Your task to perform on an android device: turn off javascript in the chrome app Image 0: 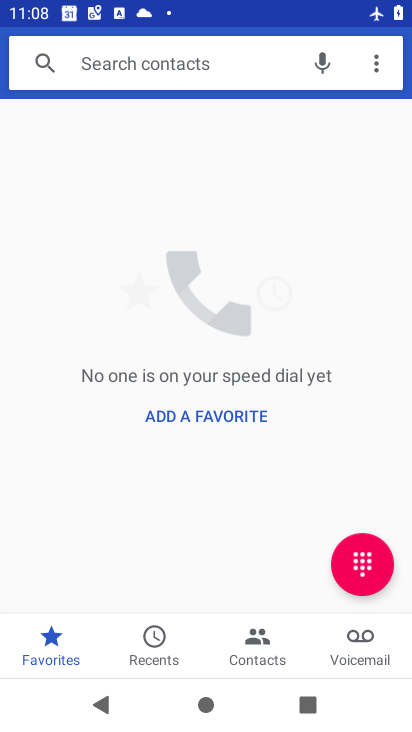
Step 0: press home button
Your task to perform on an android device: turn off javascript in the chrome app Image 1: 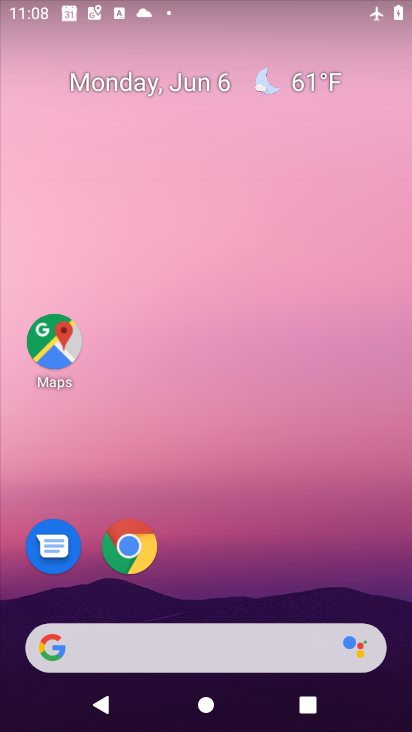
Step 1: click (130, 547)
Your task to perform on an android device: turn off javascript in the chrome app Image 2: 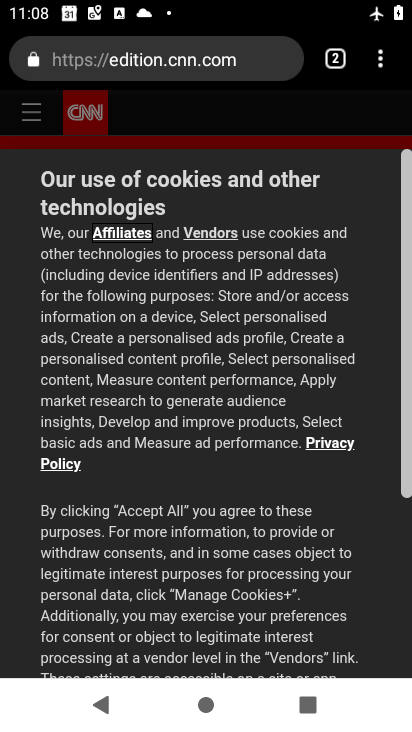
Step 2: click (377, 61)
Your task to perform on an android device: turn off javascript in the chrome app Image 3: 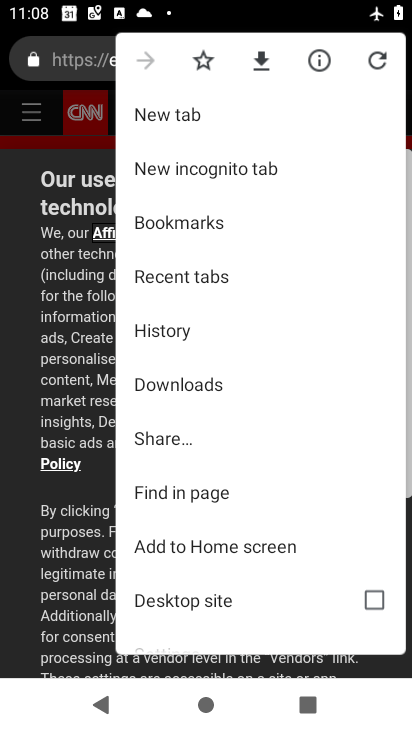
Step 3: drag from (309, 592) to (290, 194)
Your task to perform on an android device: turn off javascript in the chrome app Image 4: 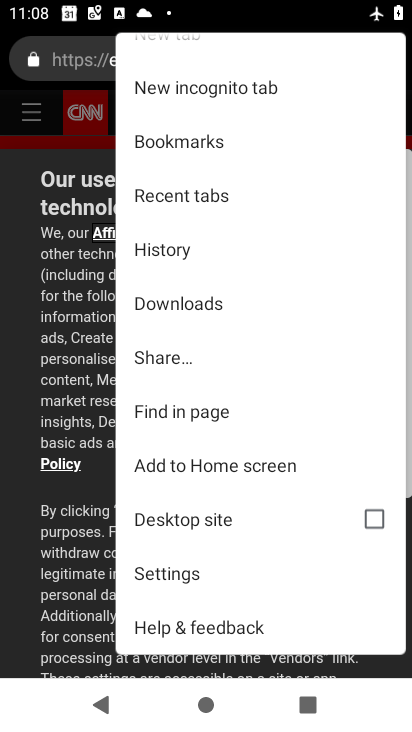
Step 4: click (158, 576)
Your task to perform on an android device: turn off javascript in the chrome app Image 5: 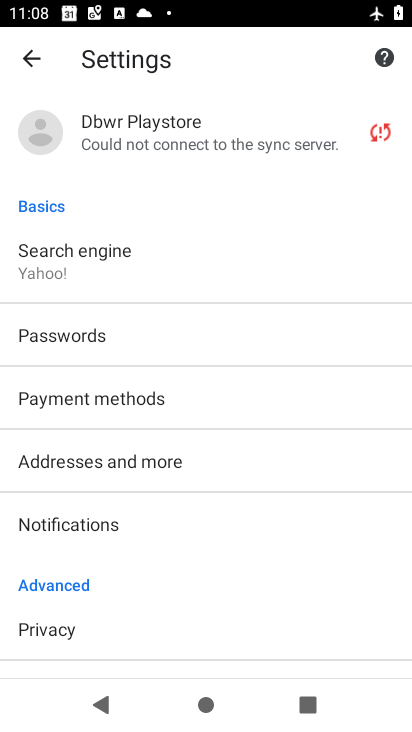
Step 5: drag from (227, 605) to (204, 277)
Your task to perform on an android device: turn off javascript in the chrome app Image 6: 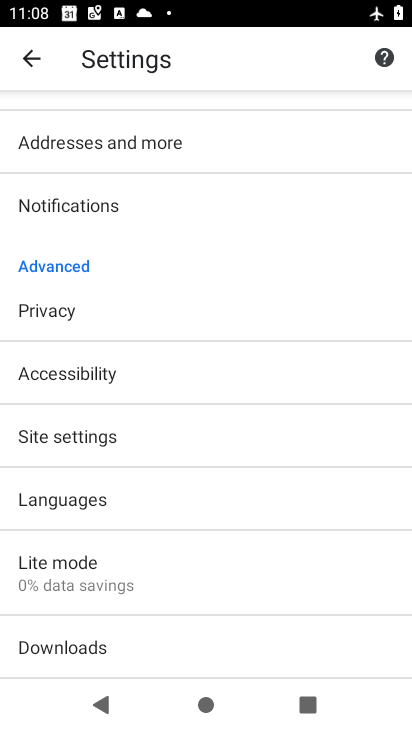
Step 6: click (71, 438)
Your task to perform on an android device: turn off javascript in the chrome app Image 7: 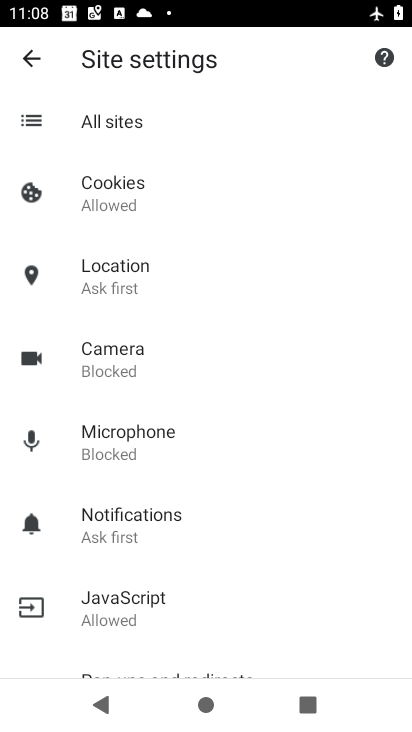
Step 7: click (116, 604)
Your task to perform on an android device: turn off javascript in the chrome app Image 8: 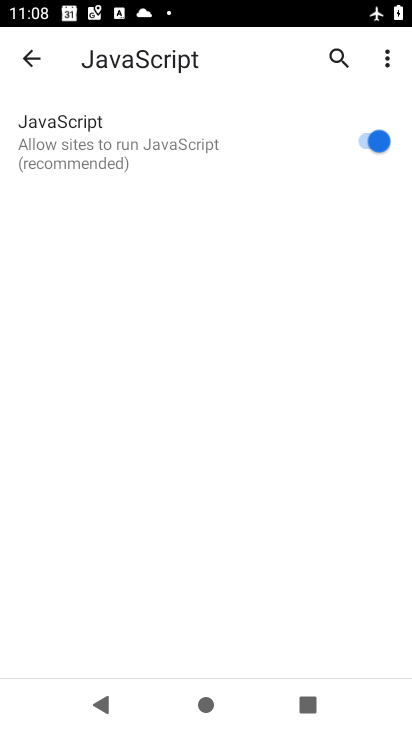
Step 8: click (363, 139)
Your task to perform on an android device: turn off javascript in the chrome app Image 9: 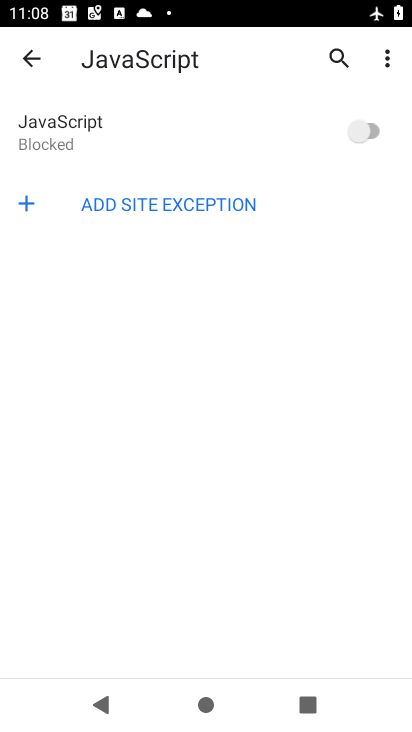
Step 9: task complete